Your task to perform on an android device: turn off airplane mode Image 0: 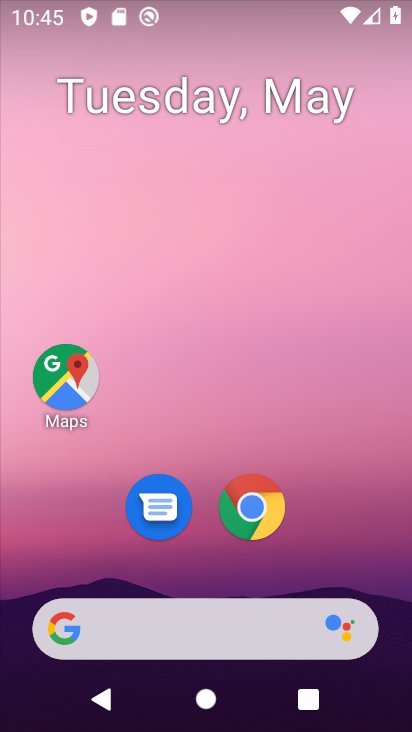
Step 0: drag from (224, 716) to (143, 143)
Your task to perform on an android device: turn off airplane mode Image 1: 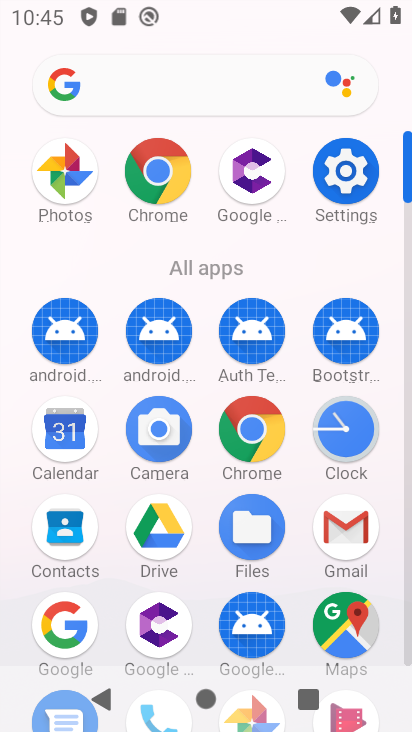
Step 1: click (354, 164)
Your task to perform on an android device: turn off airplane mode Image 2: 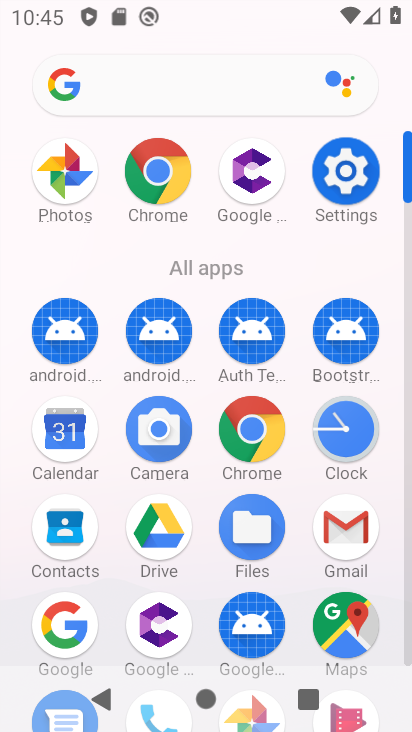
Step 2: click (350, 170)
Your task to perform on an android device: turn off airplane mode Image 3: 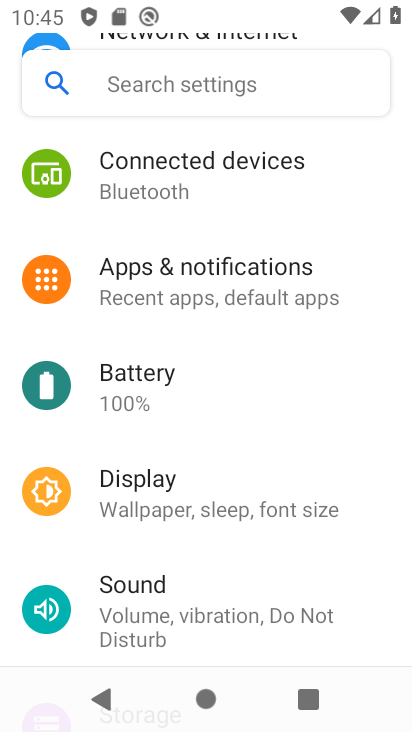
Step 3: click (351, 168)
Your task to perform on an android device: turn off airplane mode Image 4: 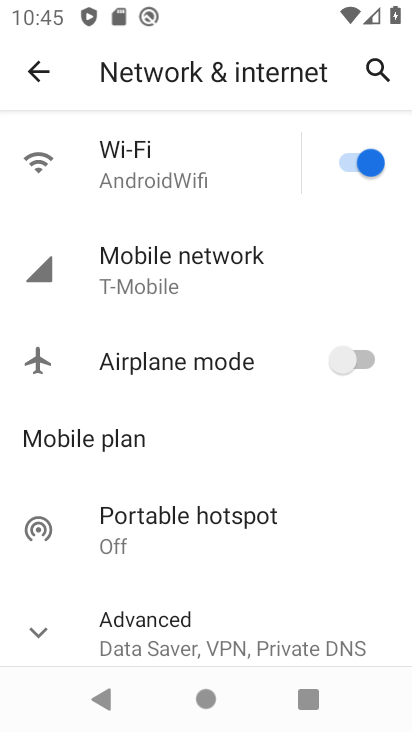
Step 4: task complete